Your task to perform on an android device: Open accessibility settings Image 0: 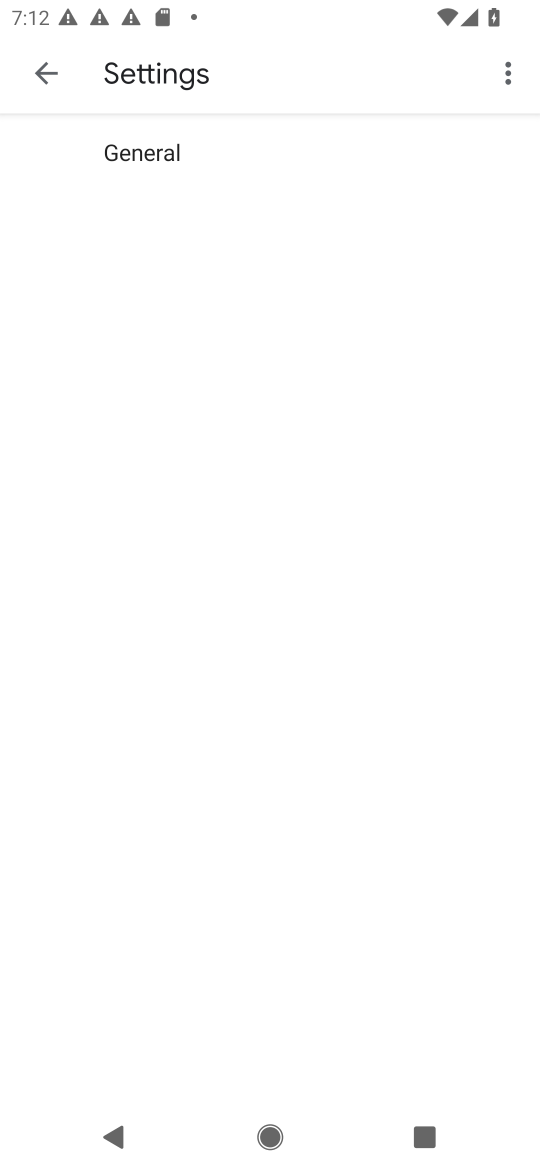
Step 0: press home button
Your task to perform on an android device: Open accessibility settings Image 1: 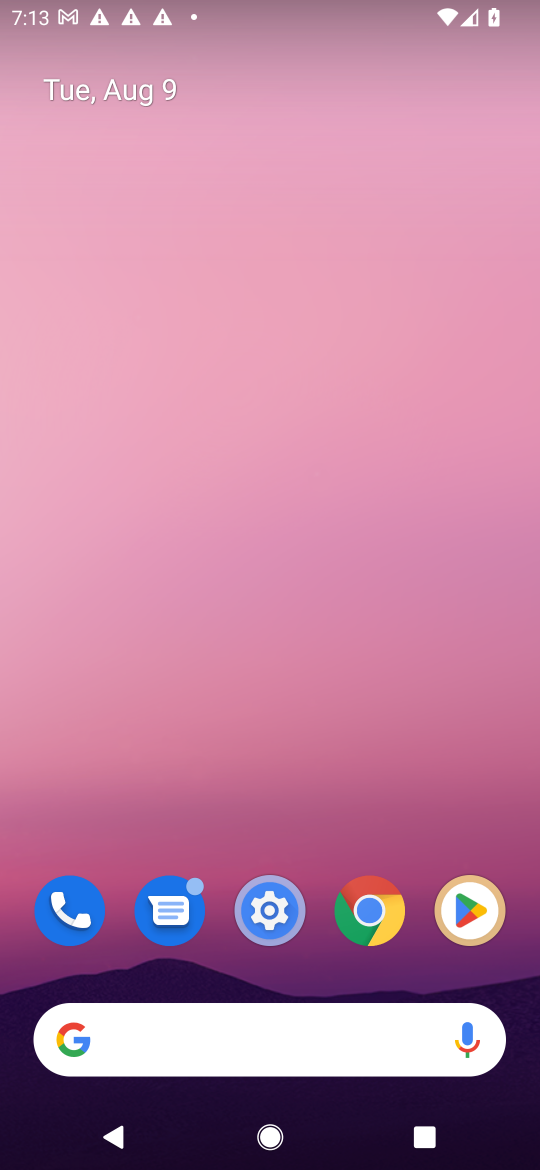
Step 1: drag from (312, 936) to (384, 81)
Your task to perform on an android device: Open accessibility settings Image 2: 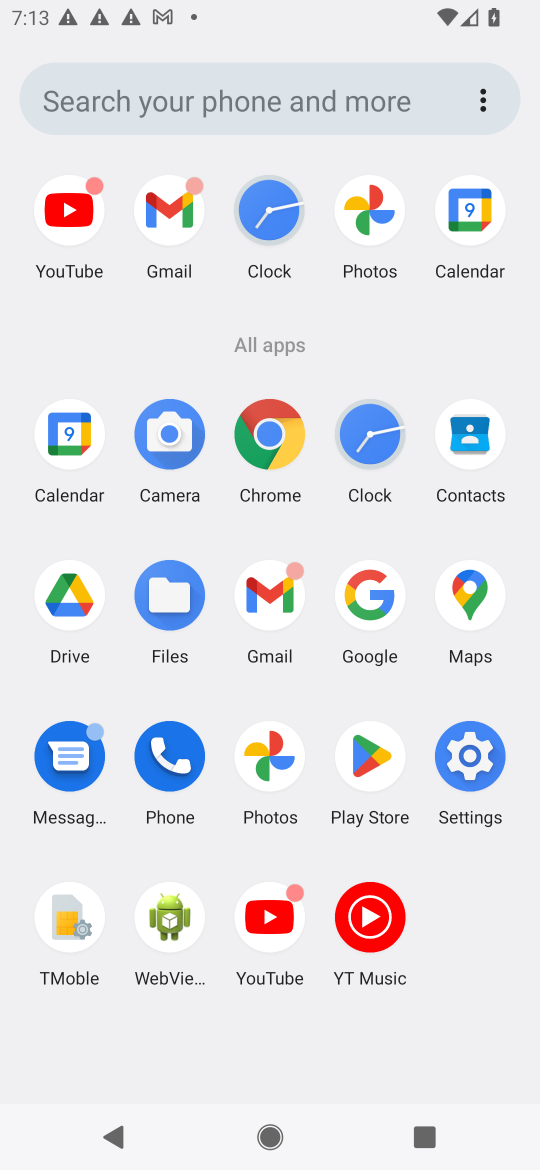
Step 2: click (462, 762)
Your task to perform on an android device: Open accessibility settings Image 3: 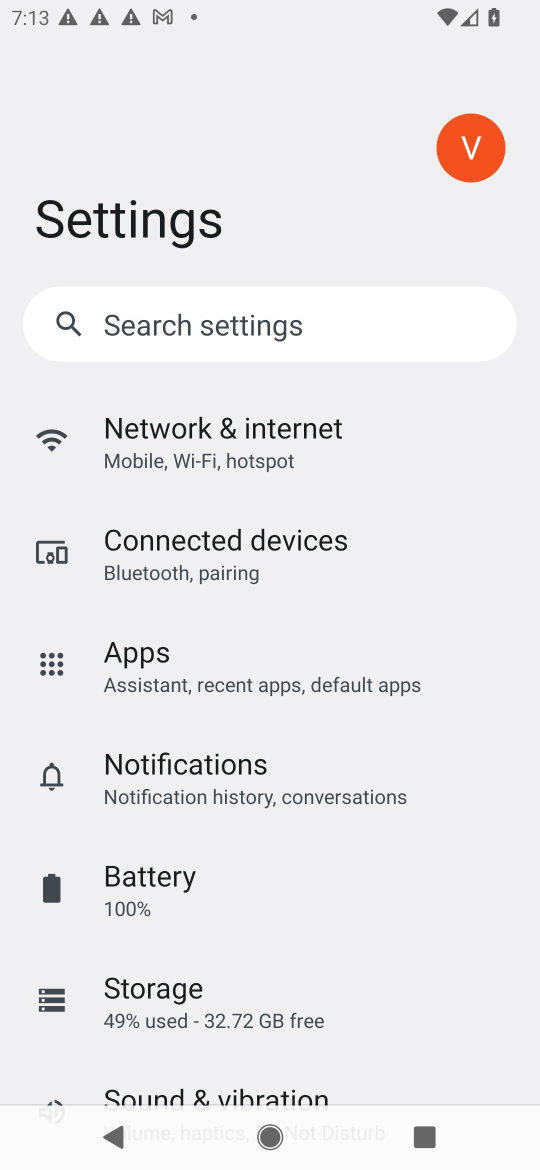
Step 3: drag from (268, 877) to (307, 307)
Your task to perform on an android device: Open accessibility settings Image 4: 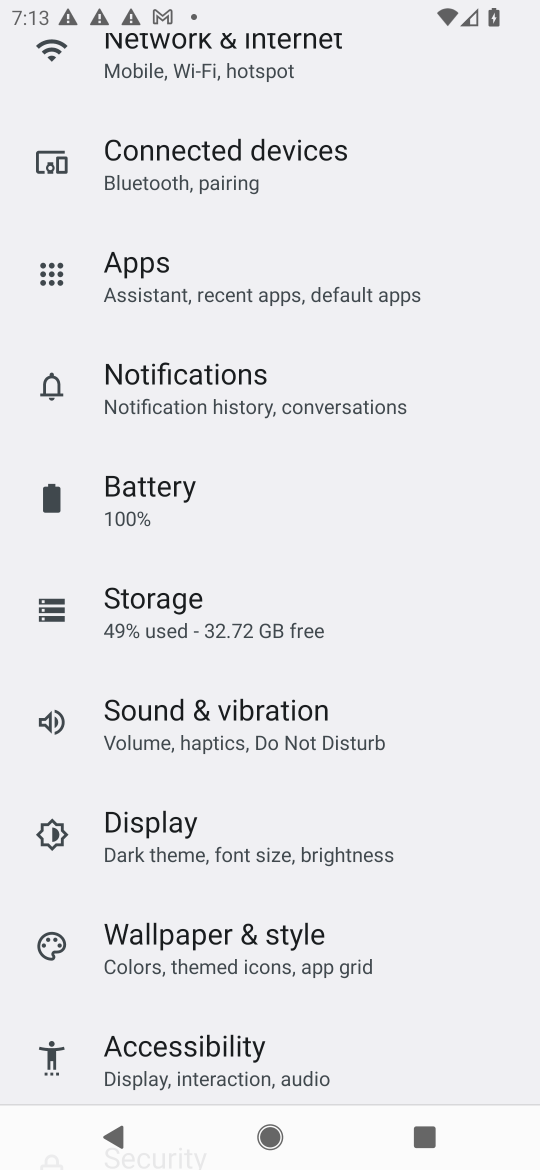
Step 4: drag from (275, 903) to (299, 353)
Your task to perform on an android device: Open accessibility settings Image 5: 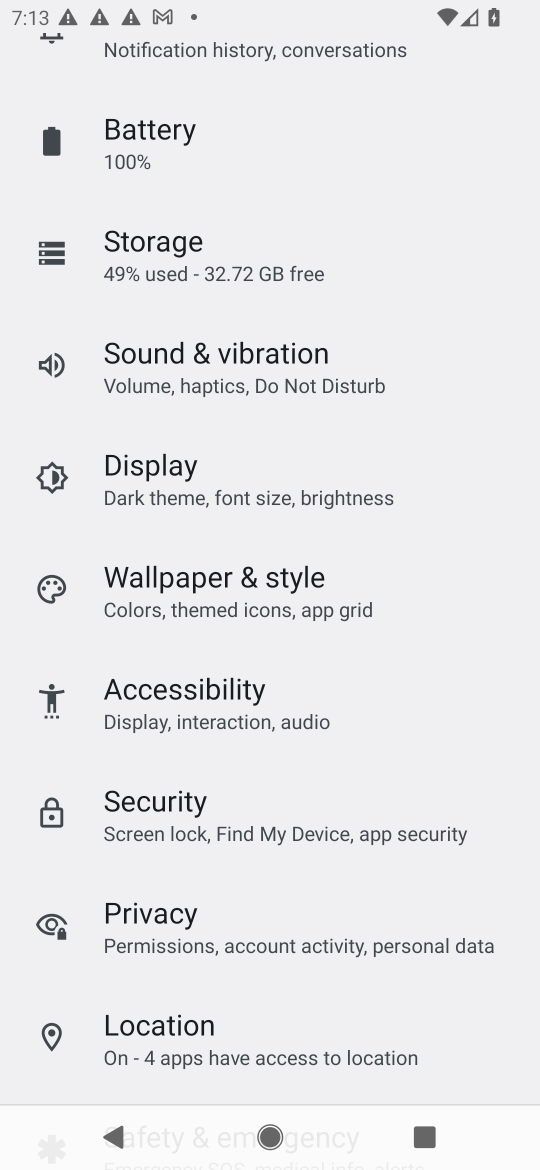
Step 5: click (324, 708)
Your task to perform on an android device: Open accessibility settings Image 6: 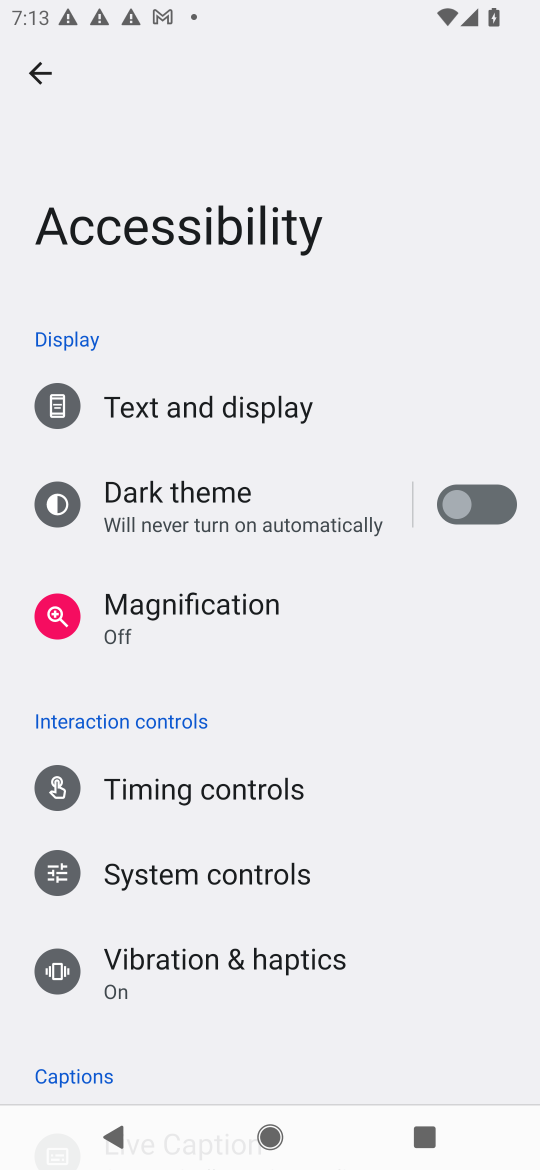
Step 6: task complete